Your task to perform on an android device: Open Wikipedia Image 0: 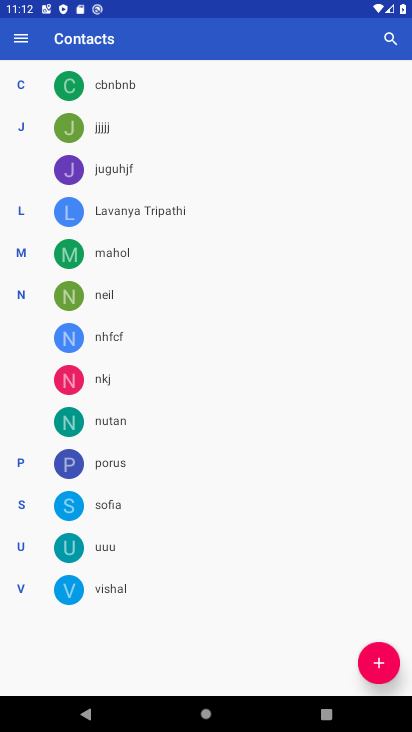
Step 0: press home button
Your task to perform on an android device: Open Wikipedia Image 1: 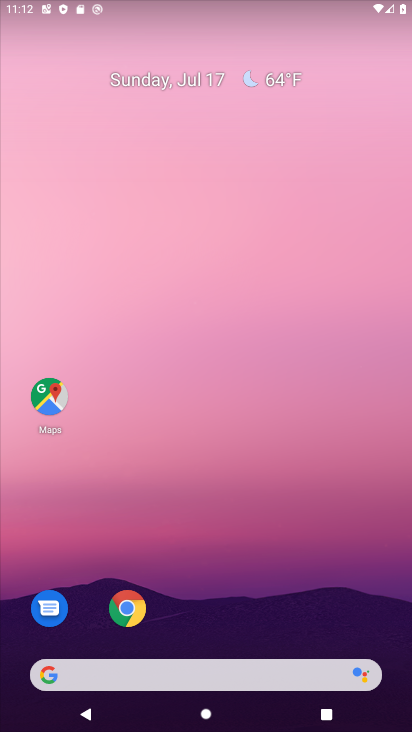
Step 1: drag from (390, 677) to (279, 10)
Your task to perform on an android device: Open Wikipedia Image 2: 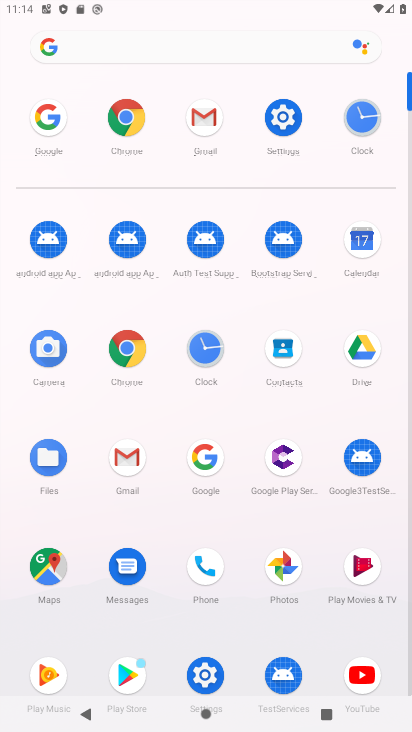
Step 2: click (201, 474)
Your task to perform on an android device: Open Wikipedia Image 3: 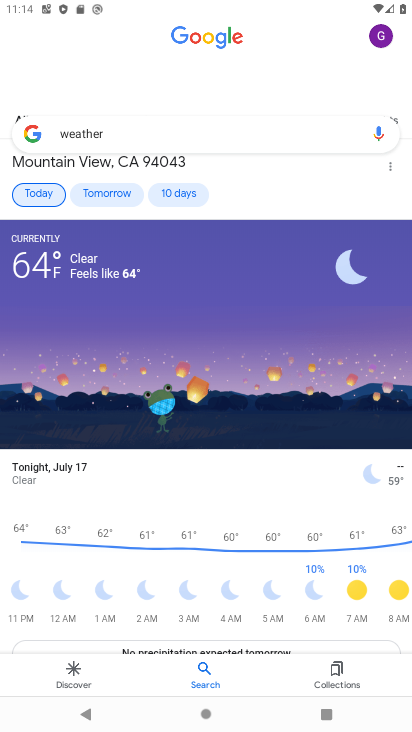
Step 3: press back button
Your task to perform on an android device: Open Wikipedia Image 4: 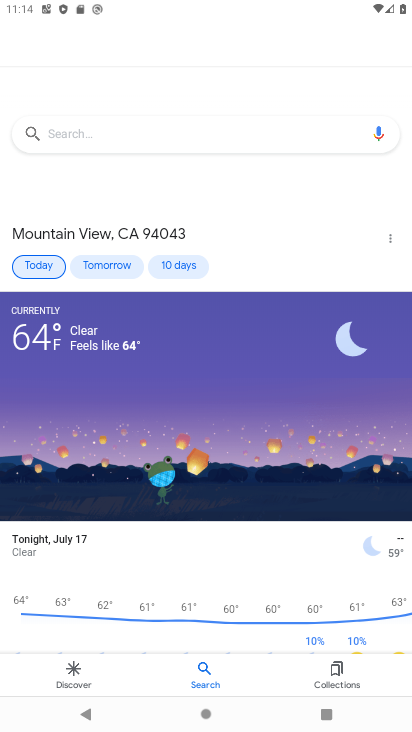
Step 4: click (92, 135)
Your task to perform on an android device: Open Wikipedia Image 5: 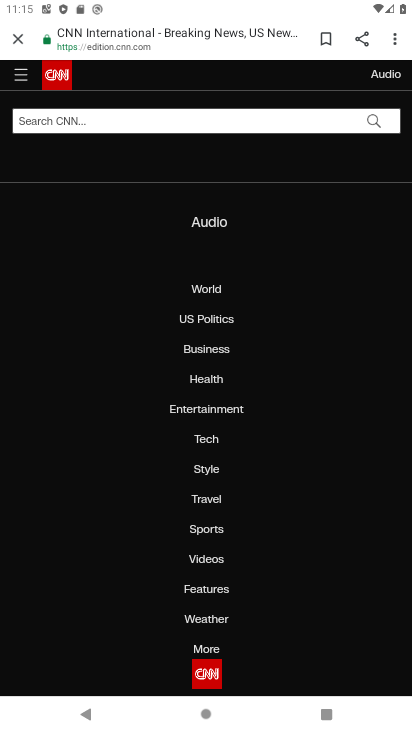
Step 5: press back button
Your task to perform on an android device: Open Wikipedia Image 6: 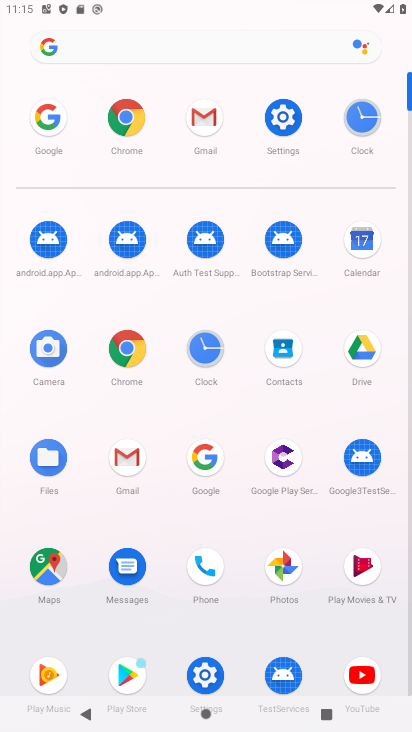
Step 6: click (218, 458)
Your task to perform on an android device: Open Wikipedia Image 7: 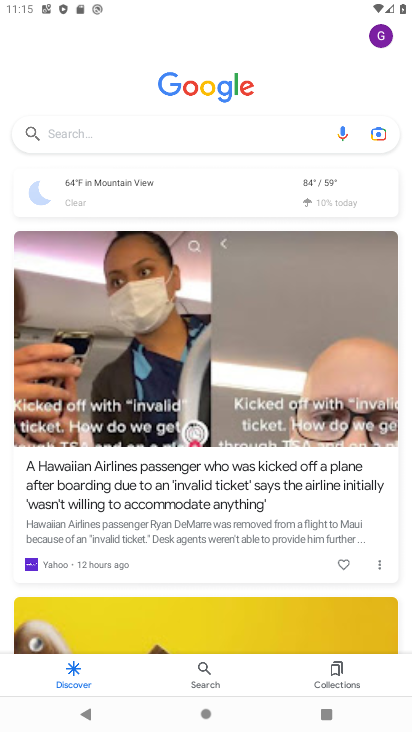
Step 7: click (100, 130)
Your task to perform on an android device: Open Wikipedia Image 8: 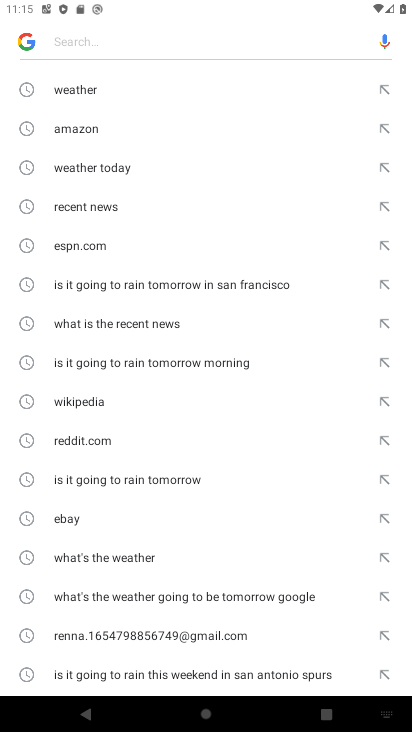
Step 8: click (85, 400)
Your task to perform on an android device: Open Wikipedia Image 9: 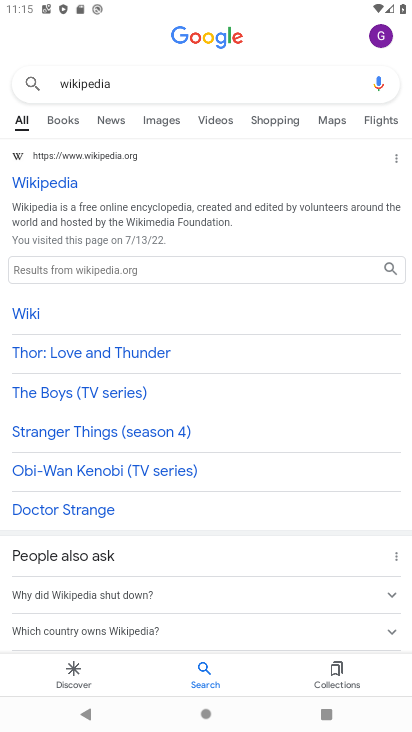
Step 9: task complete